Your task to perform on an android device: What's the weather today? Image 0: 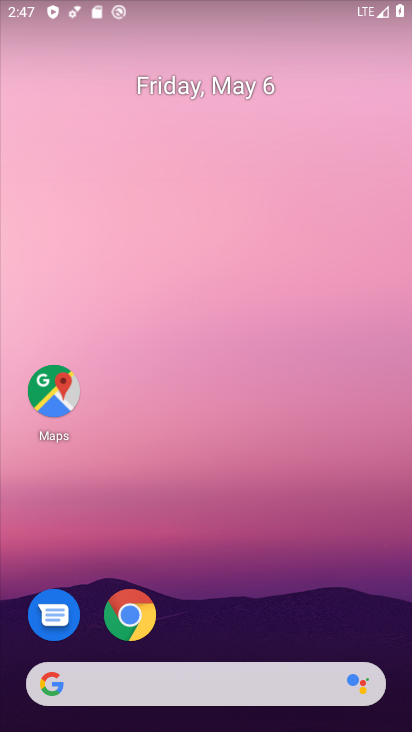
Step 0: click (171, 690)
Your task to perform on an android device: What's the weather today? Image 1: 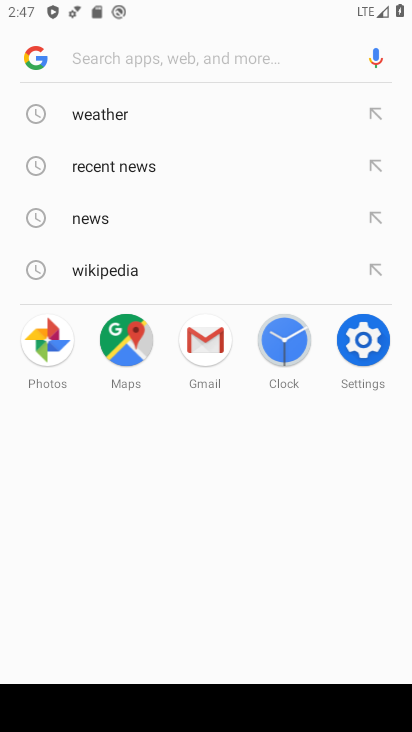
Step 1: click (105, 122)
Your task to perform on an android device: What's the weather today? Image 2: 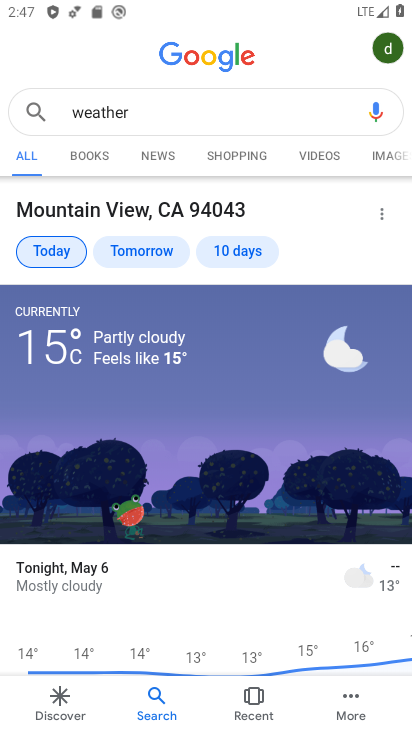
Step 2: task complete